Your task to perform on an android device: change the clock display to analog Image 0: 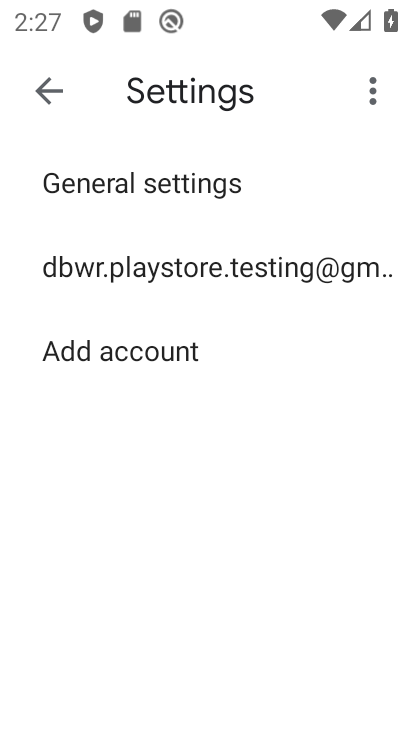
Step 0: press home button
Your task to perform on an android device: change the clock display to analog Image 1: 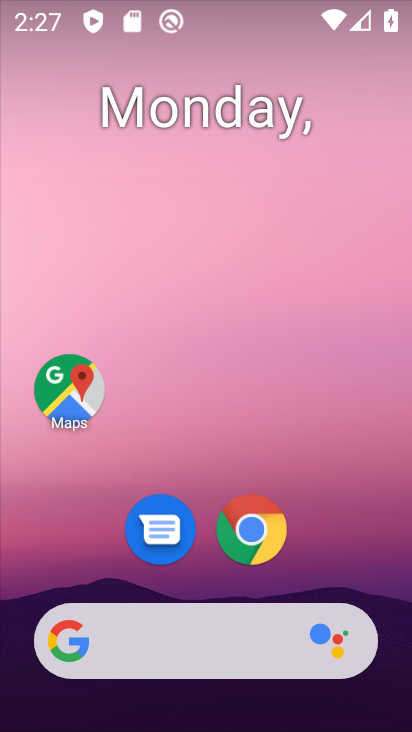
Step 1: drag from (350, 580) to (344, 152)
Your task to perform on an android device: change the clock display to analog Image 2: 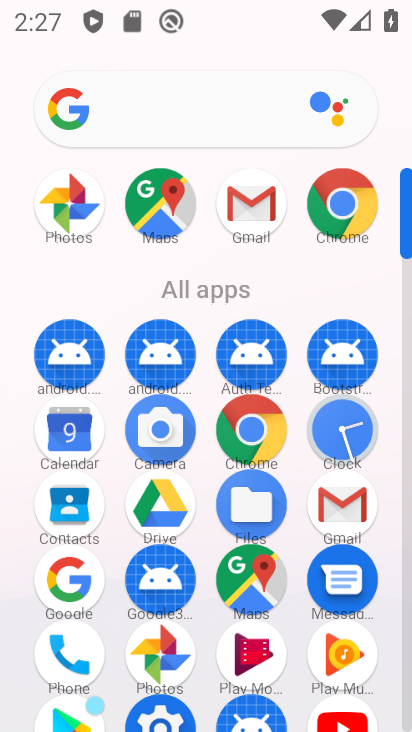
Step 2: click (337, 432)
Your task to perform on an android device: change the clock display to analog Image 3: 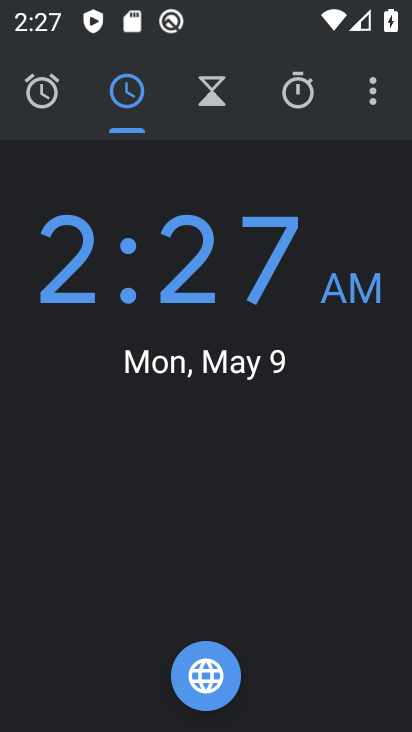
Step 3: click (366, 107)
Your task to perform on an android device: change the clock display to analog Image 4: 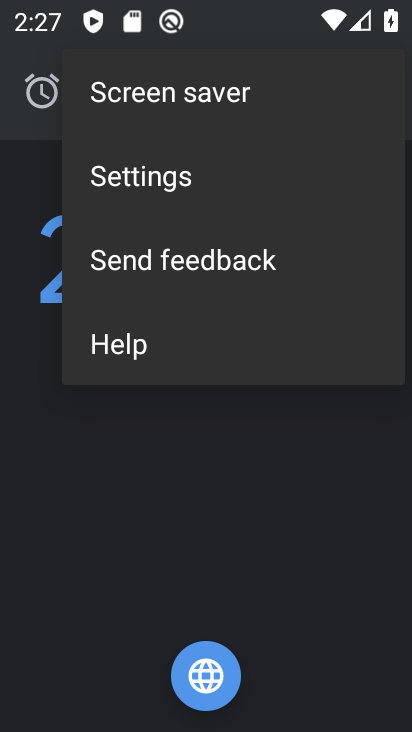
Step 4: click (240, 173)
Your task to perform on an android device: change the clock display to analog Image 5: 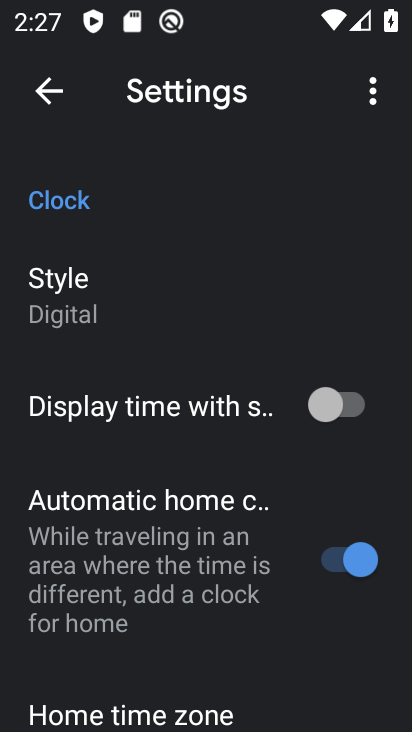
Step 5: drag from (181, 650) to (246, 317)
Your task to perform on an android device: change the clock display to analog Image 6: 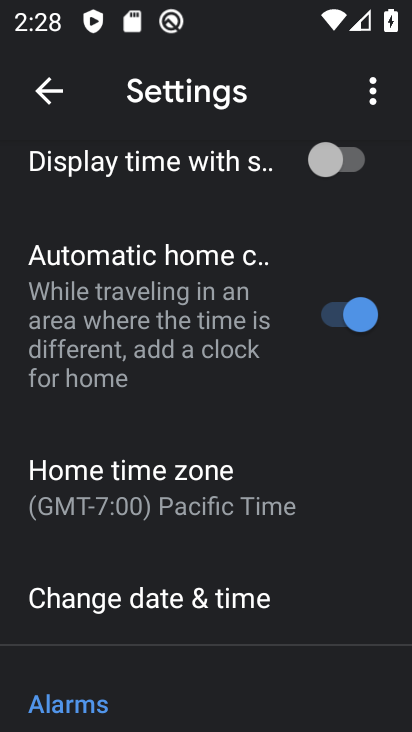
Step 6: click (33, 90)
Your task to perform on an android device: change the clock display to analog Image 7: 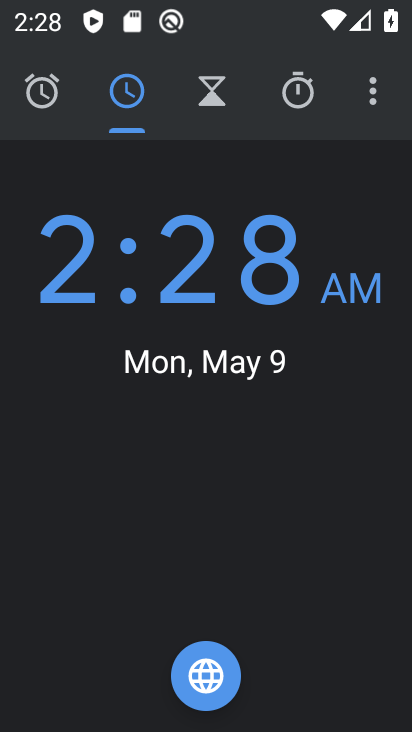
Step 7: click (48, 103)
Your task to perform on an android device: change the clock display to analog Image 8: 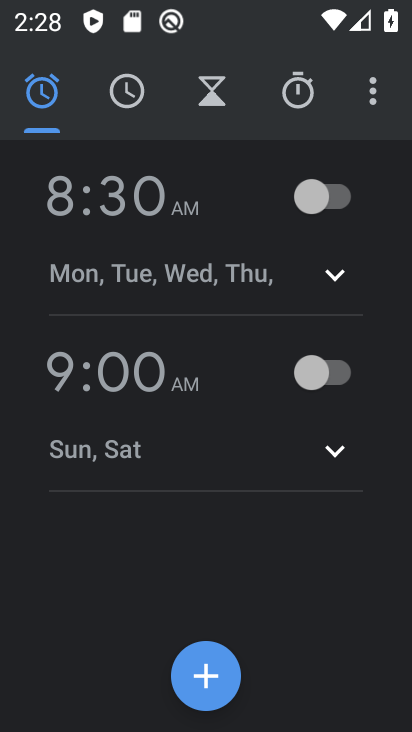
Step 8: click (392, 97)
Your task to perform on an android device: change the clock display to analog Image 9: 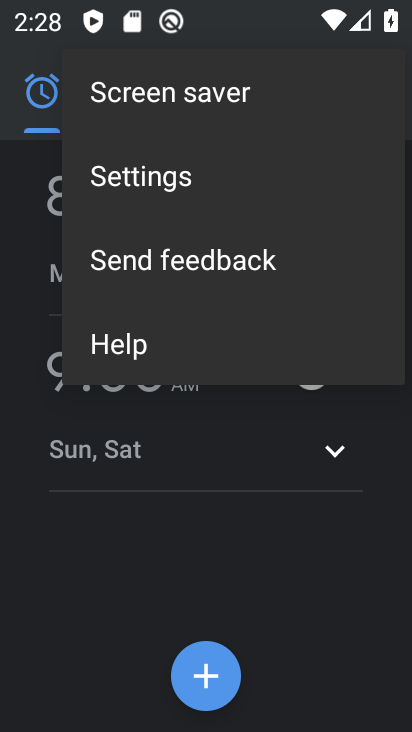
Step 9: click (213, 181)
Your task to perform on an android device: change the clock display to analog Image 10: 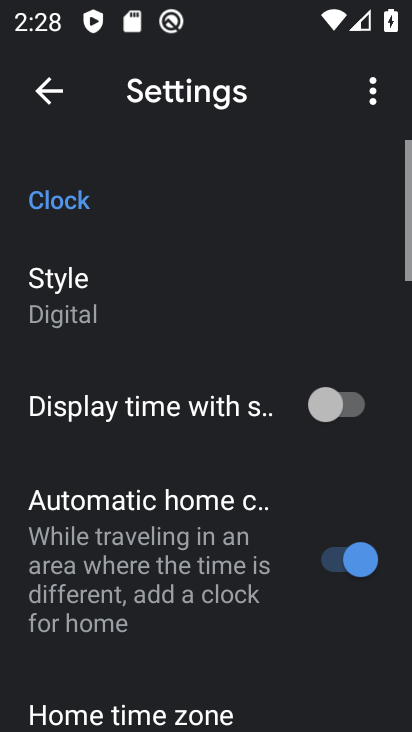
Step 10: click (79, 287)
Your task to perform on an android device: change the clock display to analog Image 11: 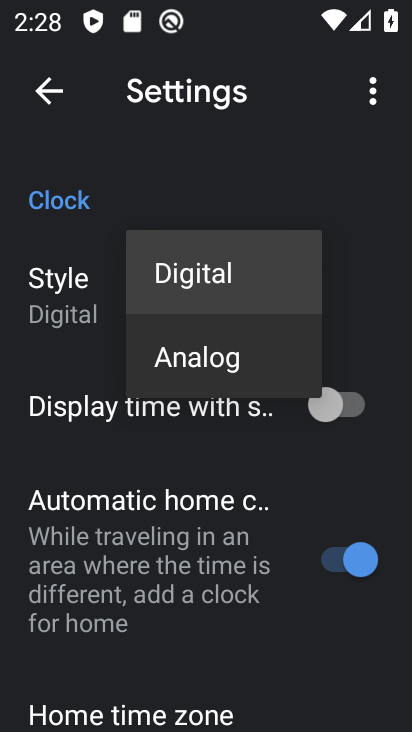
Step 11: click (156, 366)
Your task to perform on an android device: change the clock display to analog Image 12: 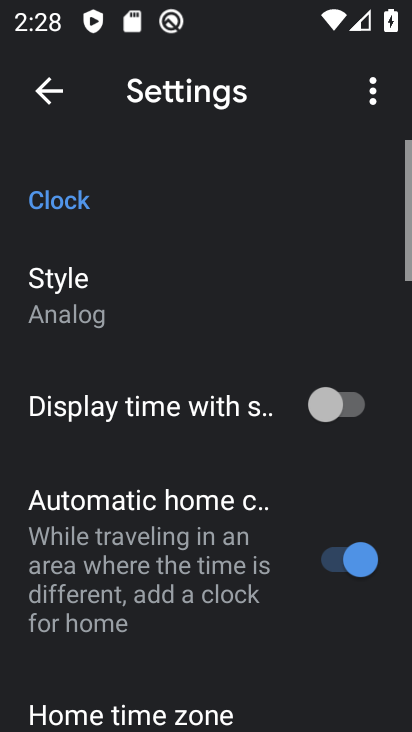
Step 12: task complete